Your task to perform on an android device: turn off location history Image 0: 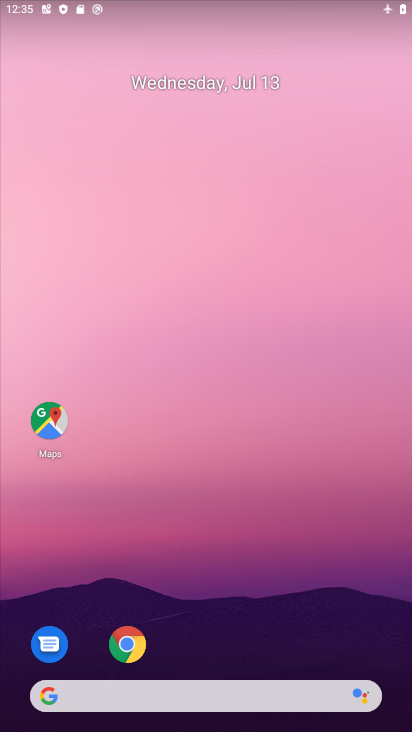
Step 0: drag from (300, 508) to (297, 47)
Your task to perform on an android device: turn off location history Image 1: 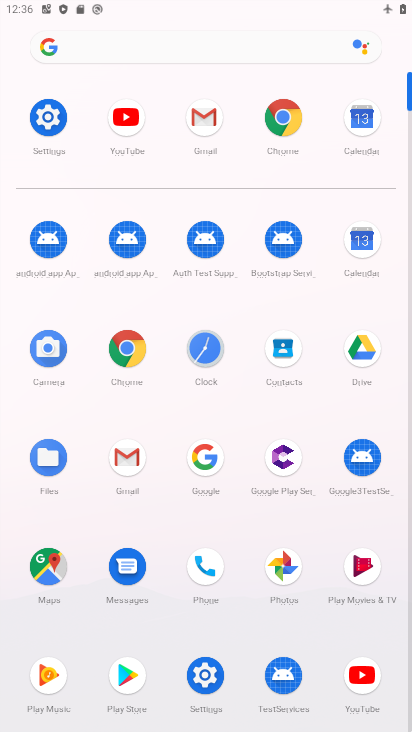
Step 1: click (50, 119)
Your task to perform on an android device: turn off location history Image 2: 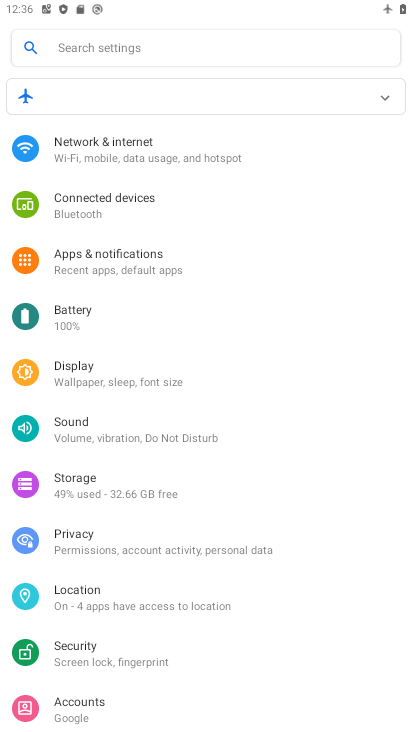
Step 2: click (127, 604)
Your task to perform on an android device: turn off location history Image 3: 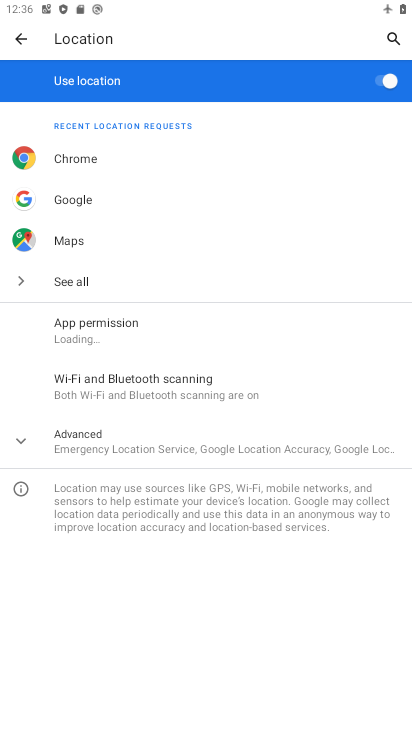
Step 3: click (108, 435)
Your task to perform on an android device: turn off location history Image 4: 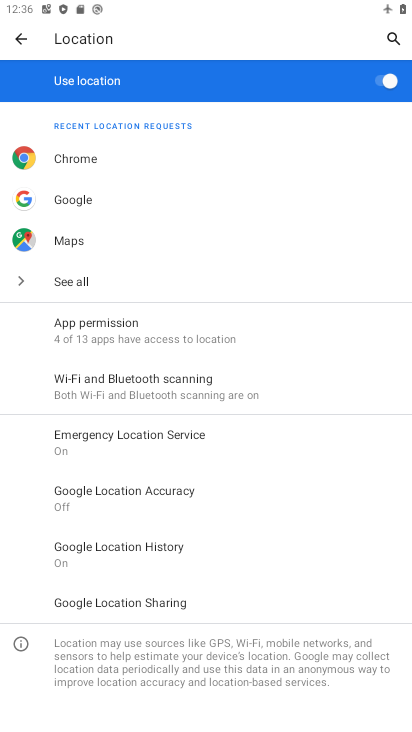
Step 4: click (172, 543)
Your task to perform on an android device: turn off location history Image 5: 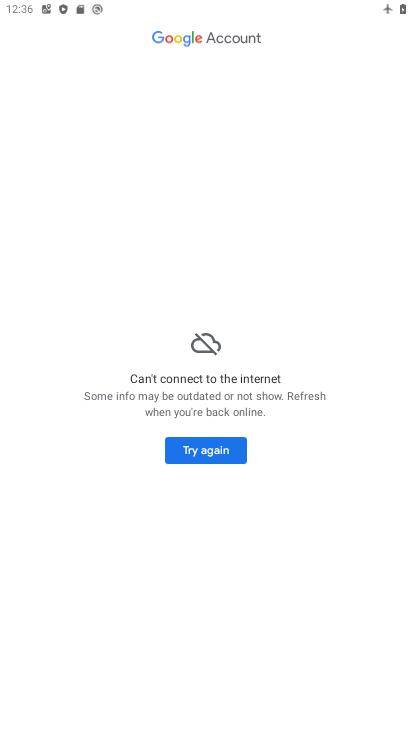
Step 5: task complete